Your task to perform on an android device: change timer sound Image 0: 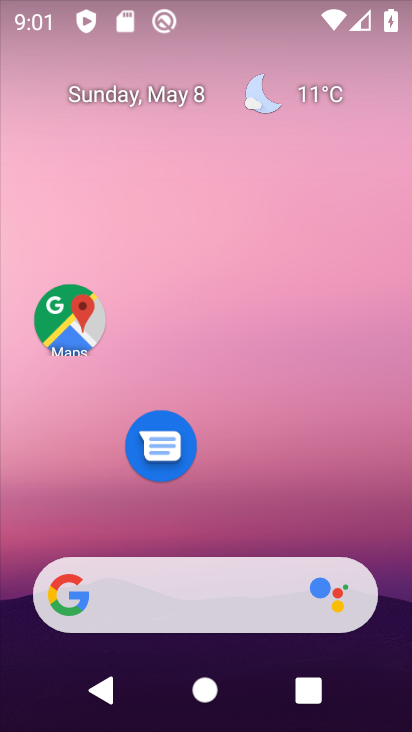
Step 0: drag from (271, 503) to (398, 65)
Your task to perform on an android device: change timer sound Image 1: 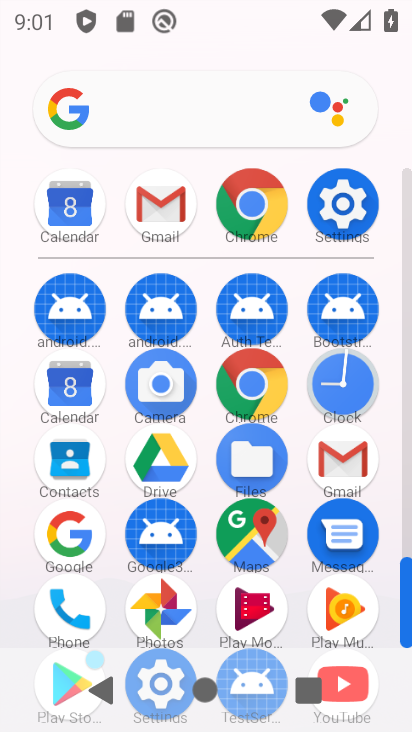
Step 1: click (325, 382)
Your task to perform on an android device: change timer sound Image 2: 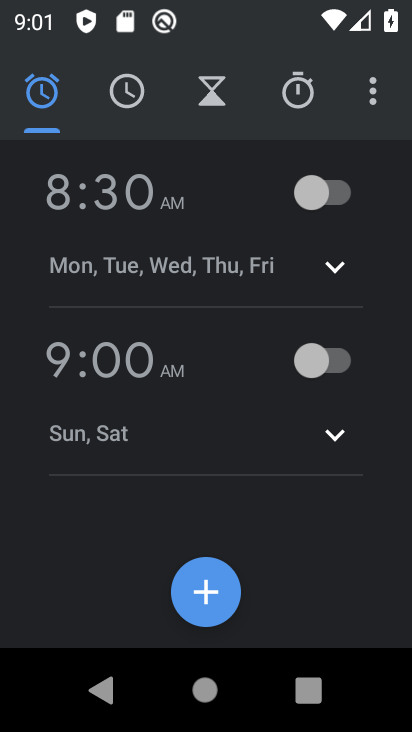
Step 2: click (379, 94)
Your task to perform on an android device: change timer sound Image 3: 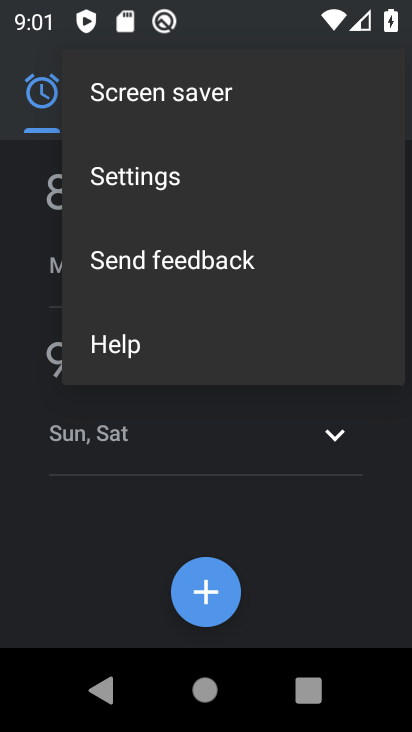
Step 3: click (195, 178)
Your task to perform on an android device: change timer sound Image 4: 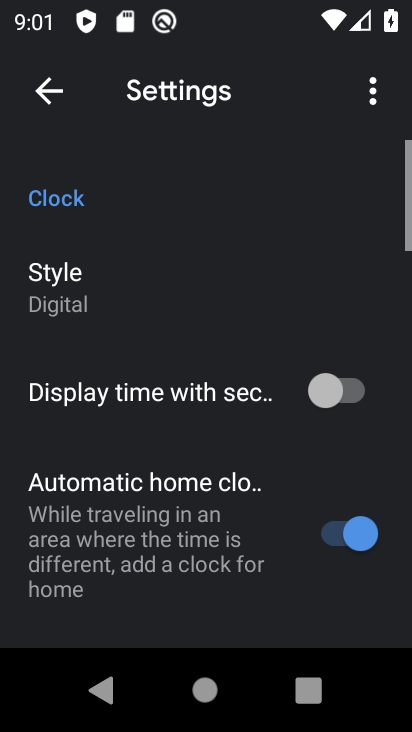
Step 4: drag from (184, 510) to (137, 188)
Your task to perform on an android device: change timer sound Image 5: 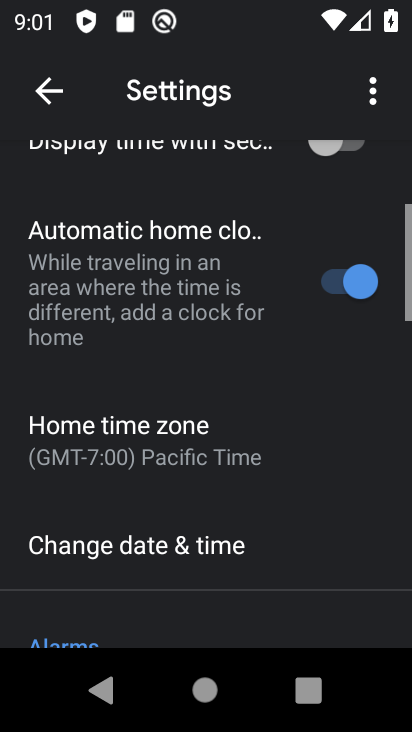
Step 5: drag from (203, 528) to (175, 178)
Your task to perform on an android device: change timer sound Image 6: 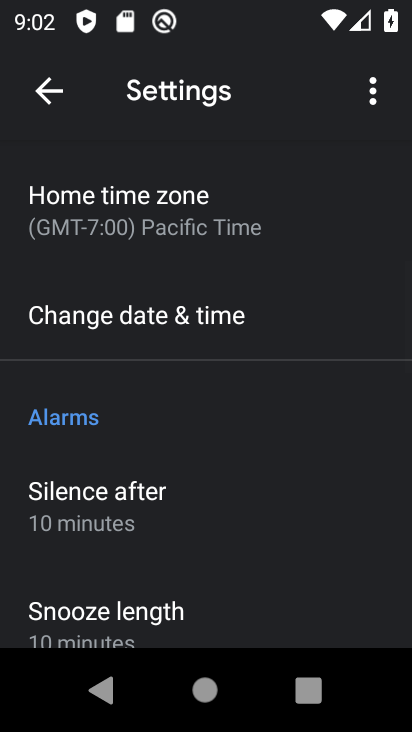
Step 6: drag from (233, 449) to (228, 175)
Your task to perform on an android device: change timer sound Image 7: 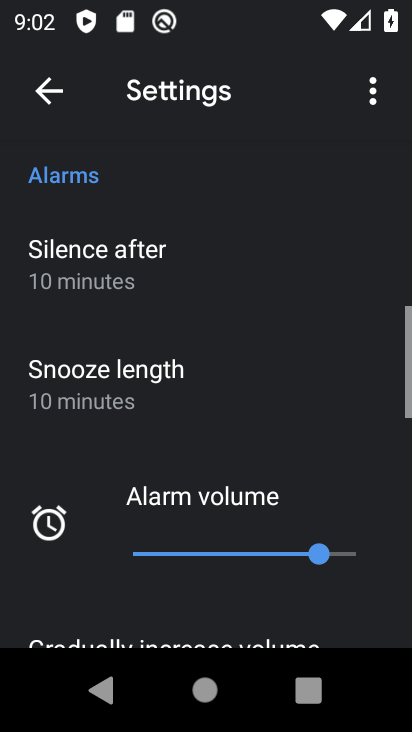
Step 7: drag from (309, 534) to (281, 105)
Your task to perform on an android device: change timer sound Image 8: 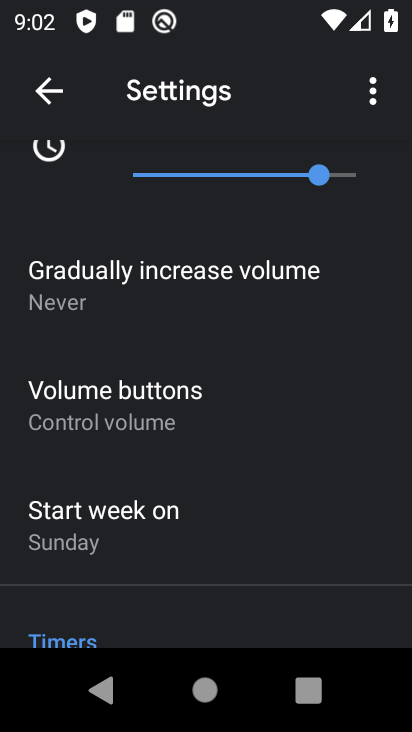
Step 8: drag from (337, 555) to (325, 108)
Your task to perform on an android device: change timer sound Image 9: 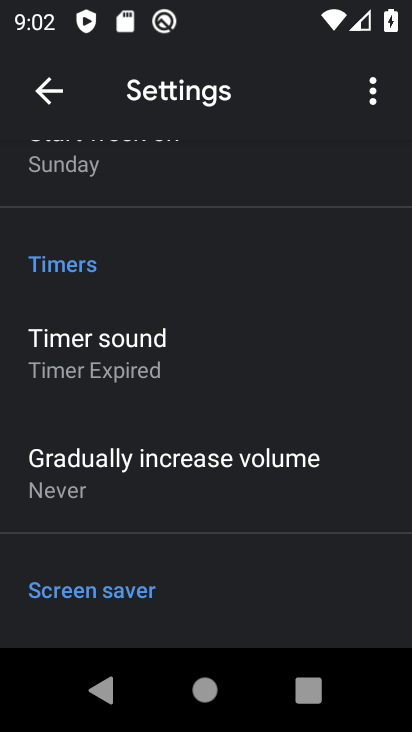
Step 9: drag from (298, 476) to (284, 435)
Your task to perform on an android device: change timer sound Image 10: 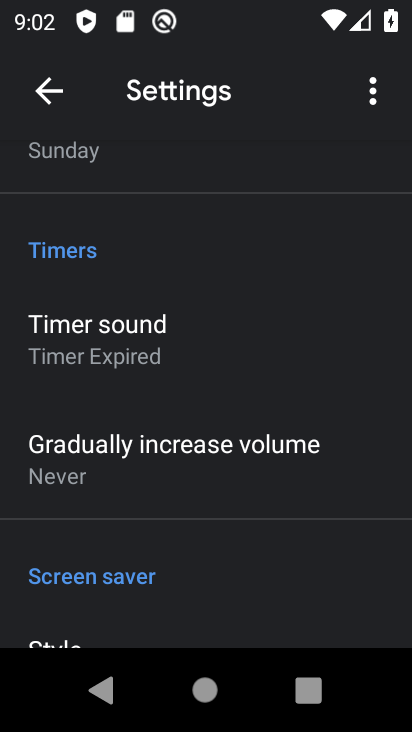
Step 10: click (128, 339)
Your task to perform on an android device: change timer sound Image 11: 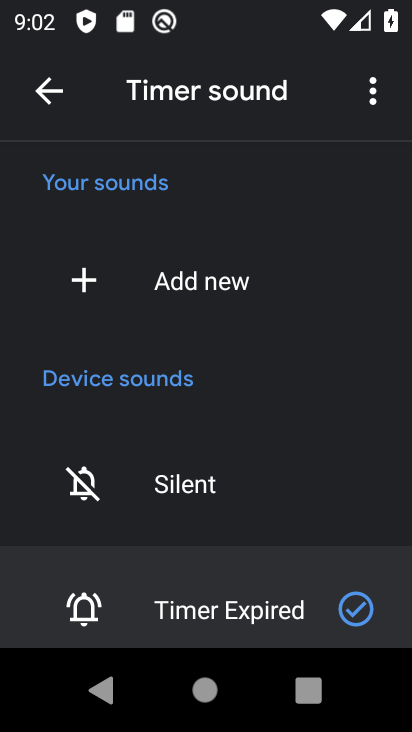
Step 11: drag from (171, 512) to (198, 146)
Your task to perform on an android device: change timer sound Image 12: 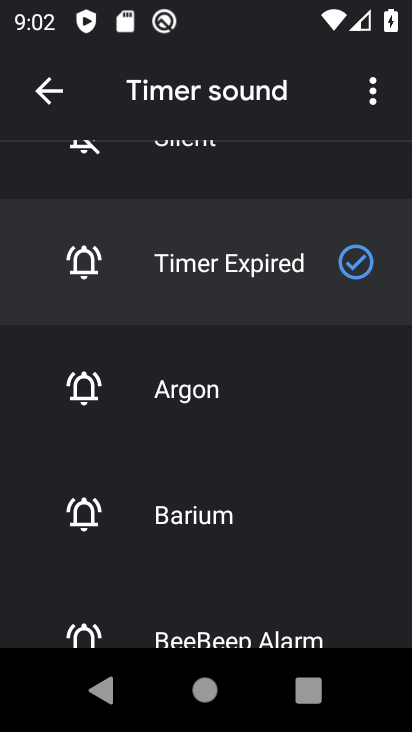
Step 12: click (191, 529)
Your task to perform on an android device: change timer sound Image 13: 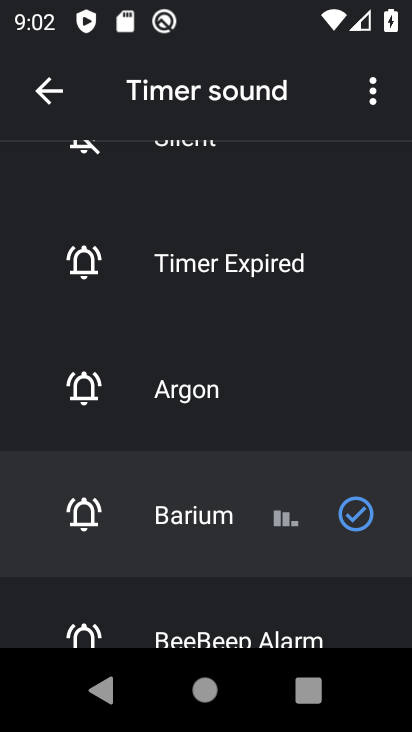
Step 13: task complete